Your task to perform on an android device: Turn off the flashlight Image 0: 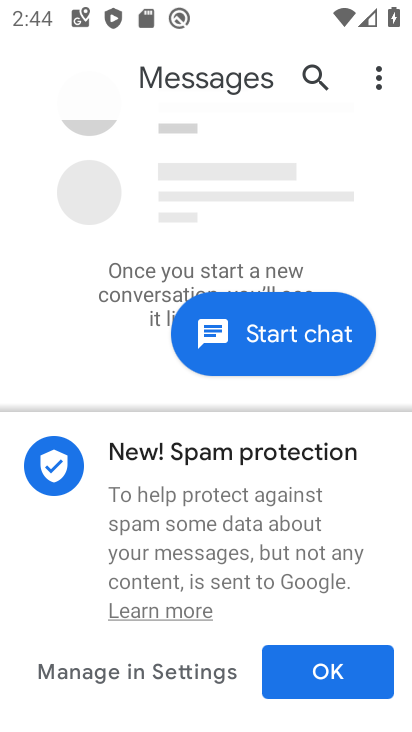
Step 0: press home button
Your task to perform on an android device: Turn off the flashlight Image 1: 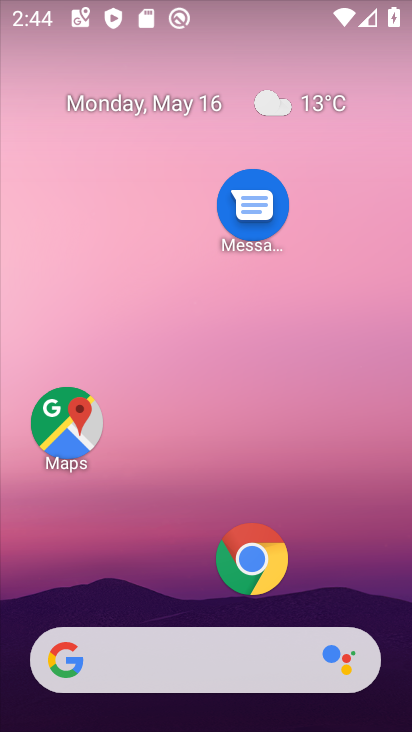
Step 1: drag from (153, 581) to (177, 199)
Your task to perform on an android device: Turn off the flashlight Image 2: 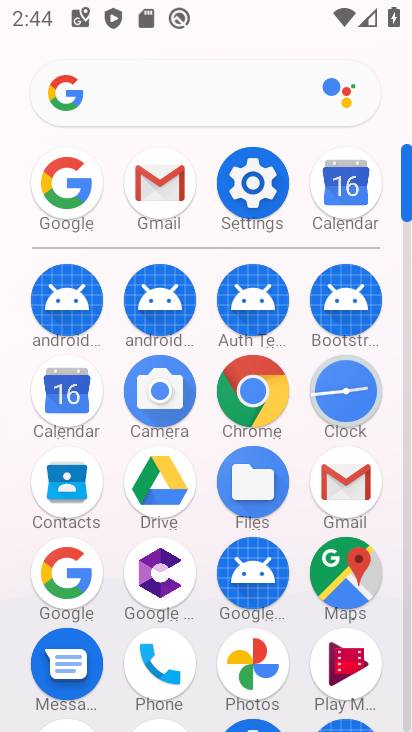
Step 2: click (258, 176)
Your task to perform on an android device: Turn off the flashlight Image 3: 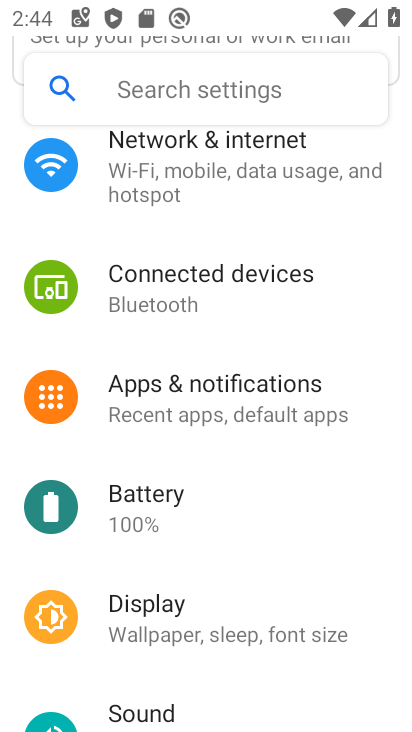
Step 3: click (183, 597)
Your task to perform on an android device: Turn off the flashlight Image 4: 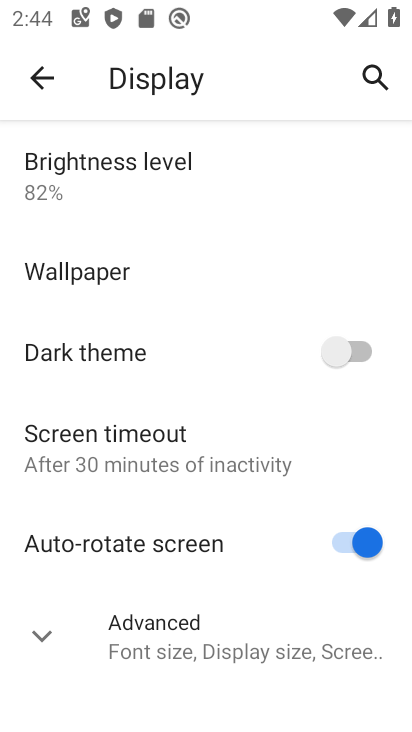
Step 4: drag from (146, 542) to (208, 170)
Your task to perform on an android device: Turn off the flashlight Image 5: 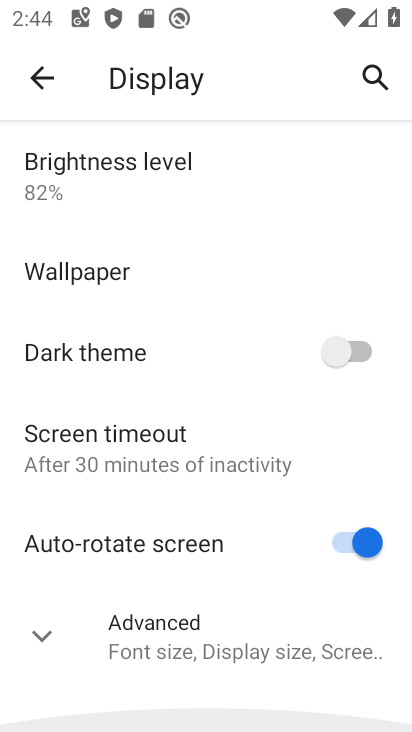
Step 5: drag from (202, 193) to (223, 560)
Your task to perform on an android device: Turn off the flashlight Image 6: 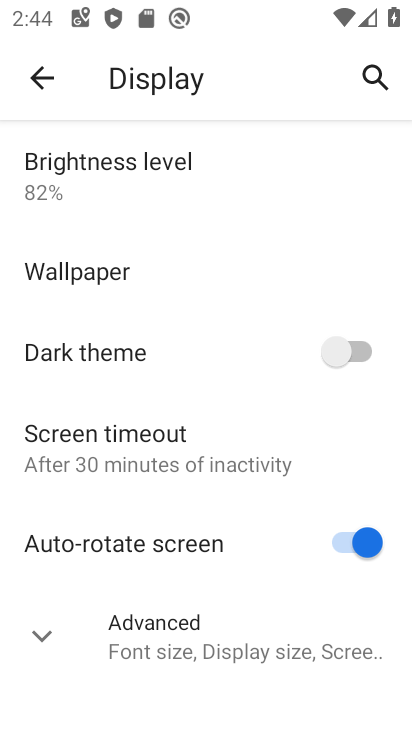
Step 6: click (39, 68)
Your task to perform on an android device: Turn off the flashlight Image 7: 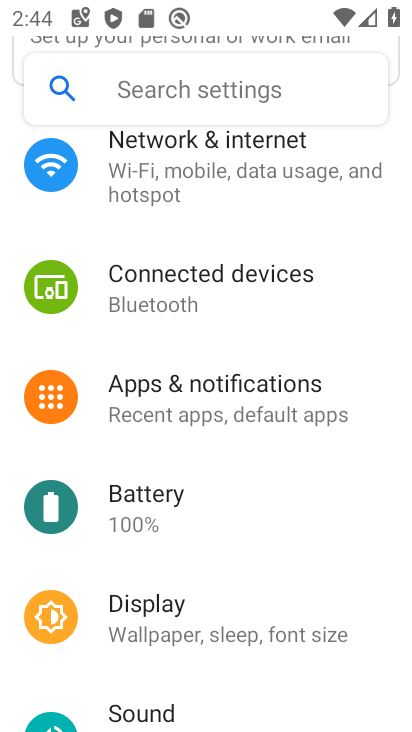
Step 7: task complete